Your task to perform on an android device: Open the phone app and click the voicemail tab. Image 0: 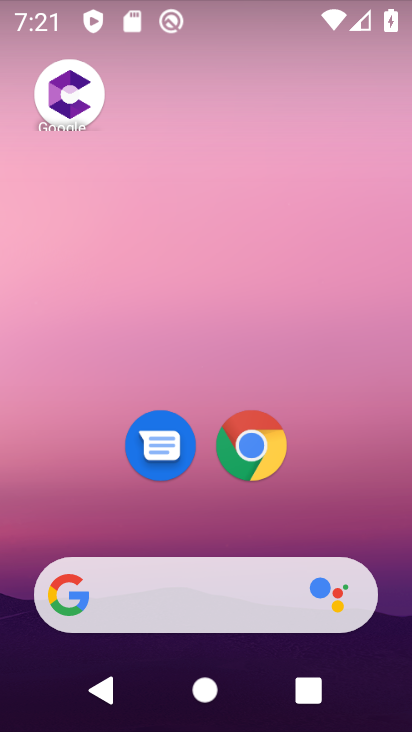
Step 0: drag from (392, 565) to (327, 131)
Your task to perform on an android device: Open the phone app and click the voicemail tab. Image 1: 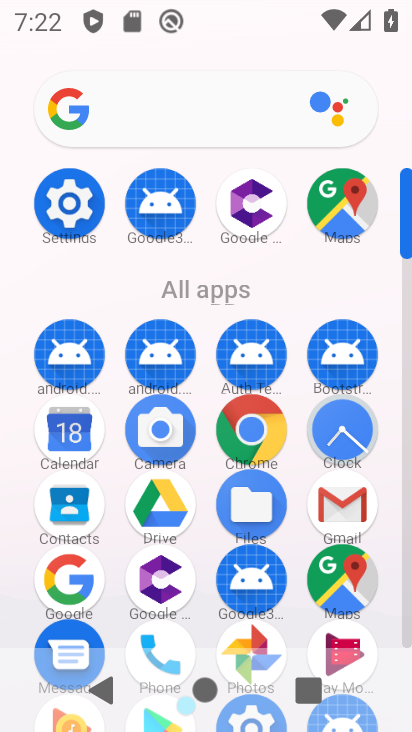
Step 1: click (165, 624)
Your task to perform on an android device: Open the phone app and click the voicemail tab. Image 2: 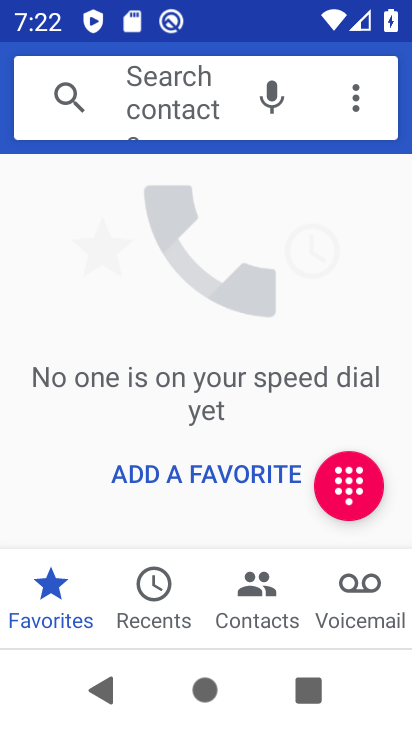
Step 2: click (356, 587)
Your task to perform on an android device: Open the phone app and click the voicemail tab. Image 3: 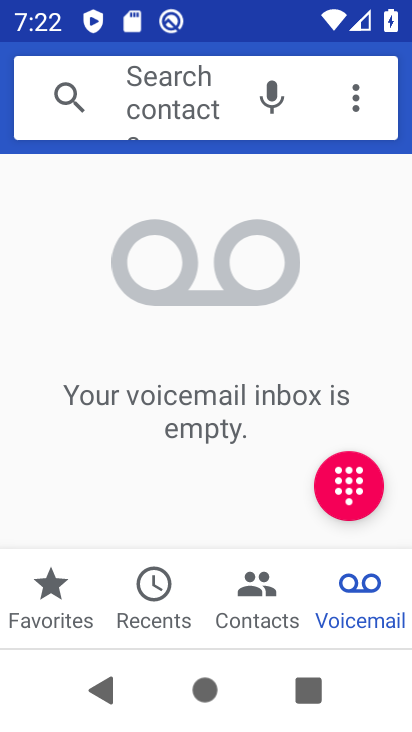
Step 3: task complete